Your task to perform on an android device: change notification settings in the gmail app Image 0: 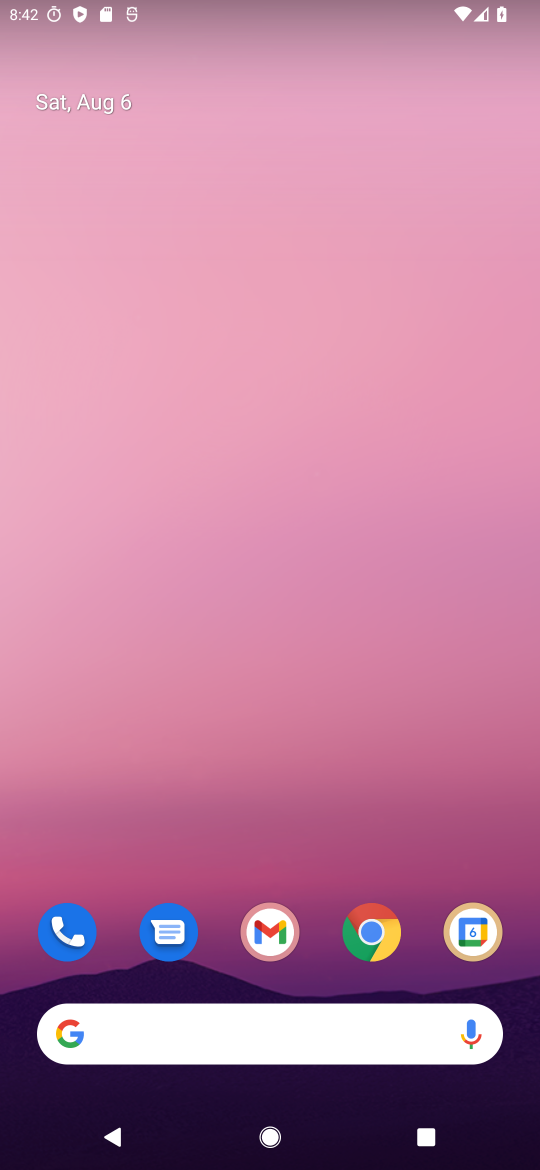
Step 0: drag from (319, 1019) to (540, 71)
Your task to perform on an android device: change notification settings in the gmail app Image 1: 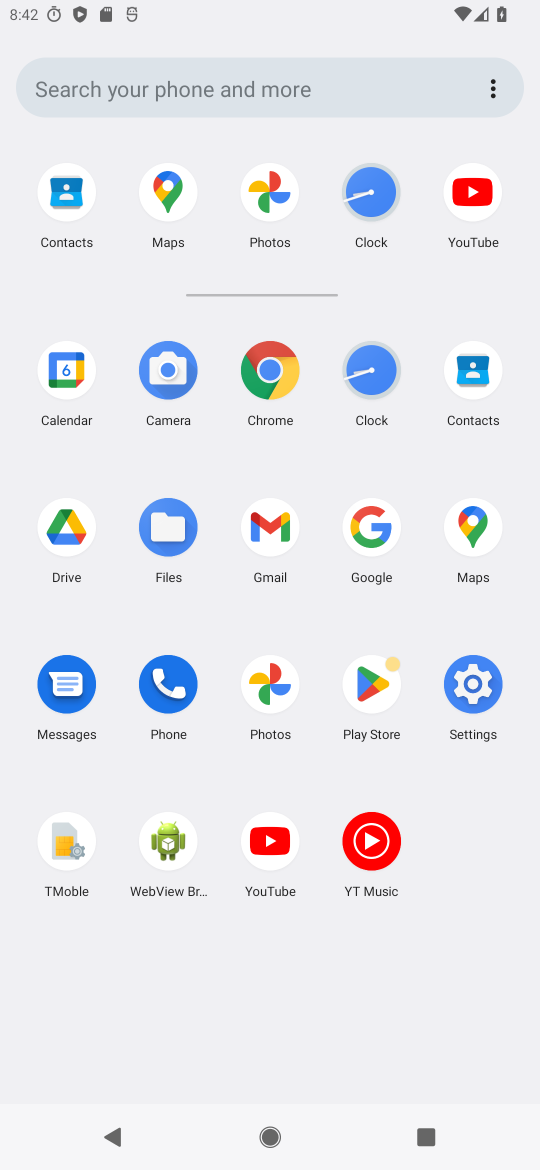
Step 1: click (277, 519)
Your task to perform on an android device: change notification settings in the gmail app Image 2: 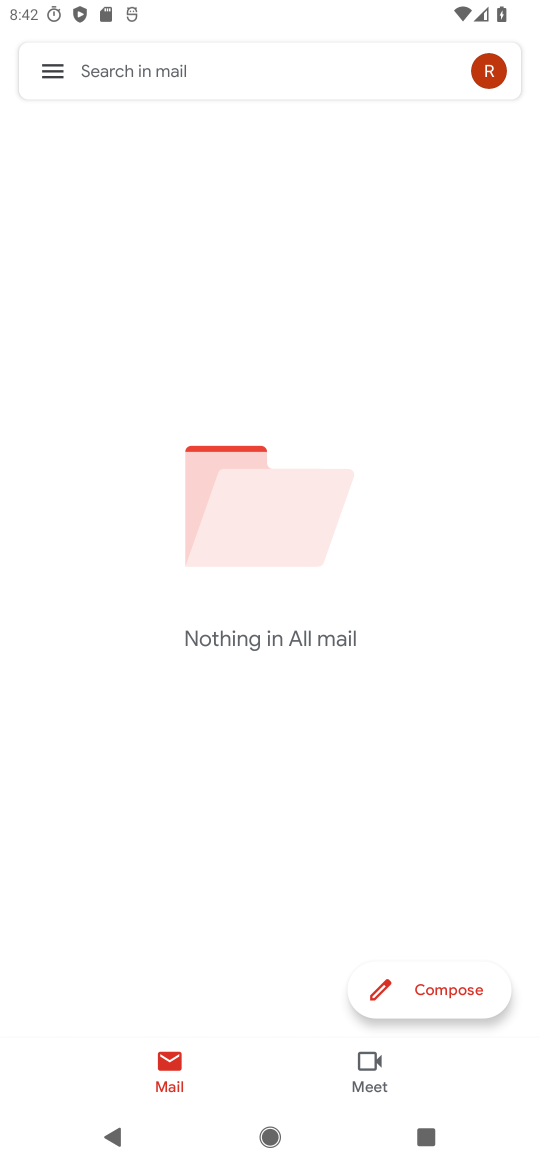
Step 2: click (40, 73)
Your task to perform on an android device: change notification settings in the gmail app Image 3: 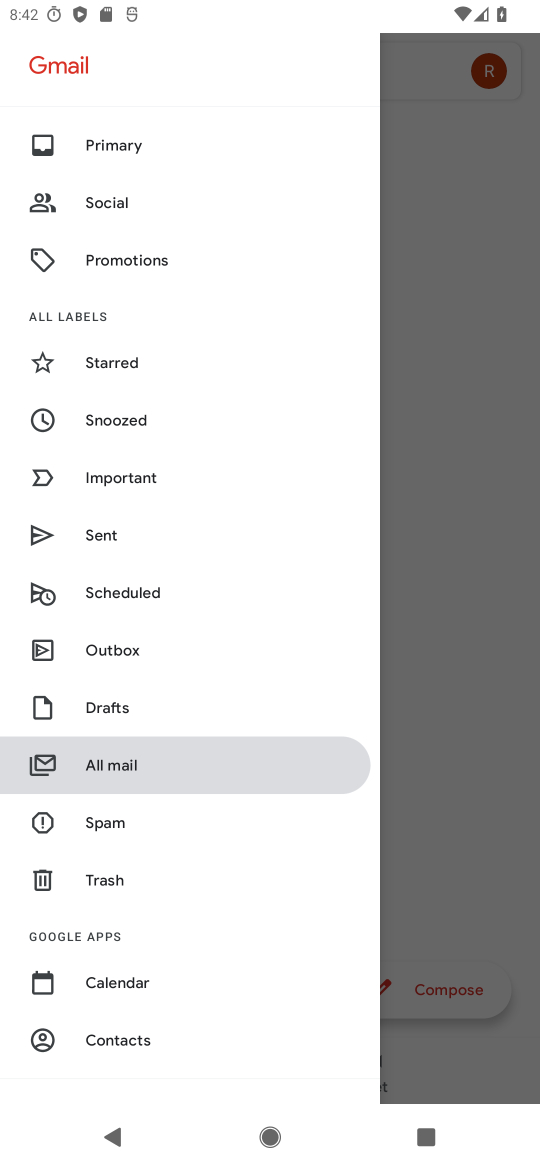
Step 3: drag from (270, 760) to (401, 457)
Your task to perform on an android device: change notification settings in the gmail app Image 4: 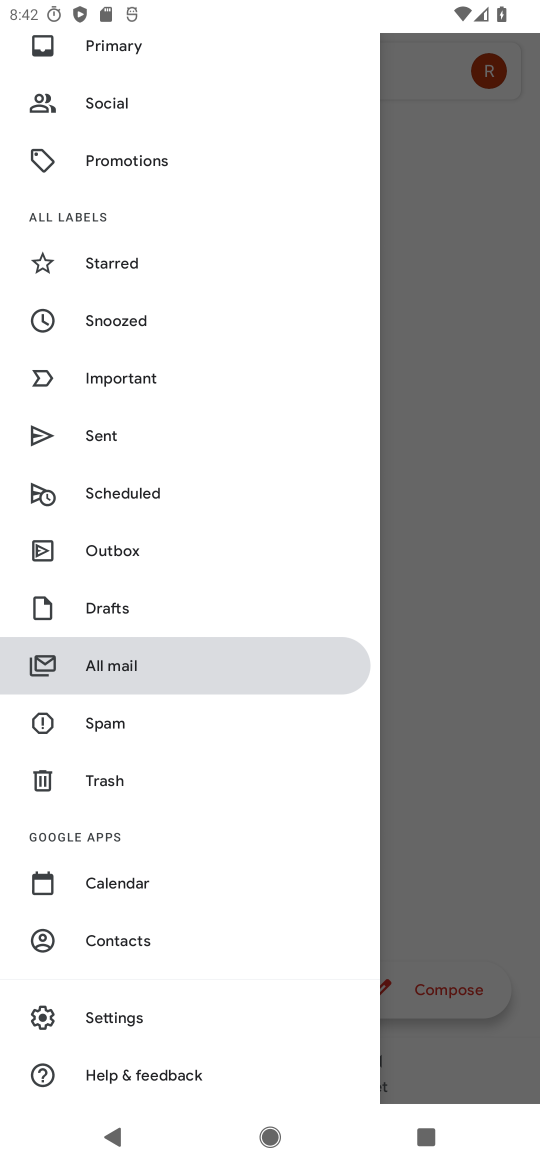
Step 4: click (137, 1015)
Your task to perform on an android device: change notification settings in the gmail app Image 5: 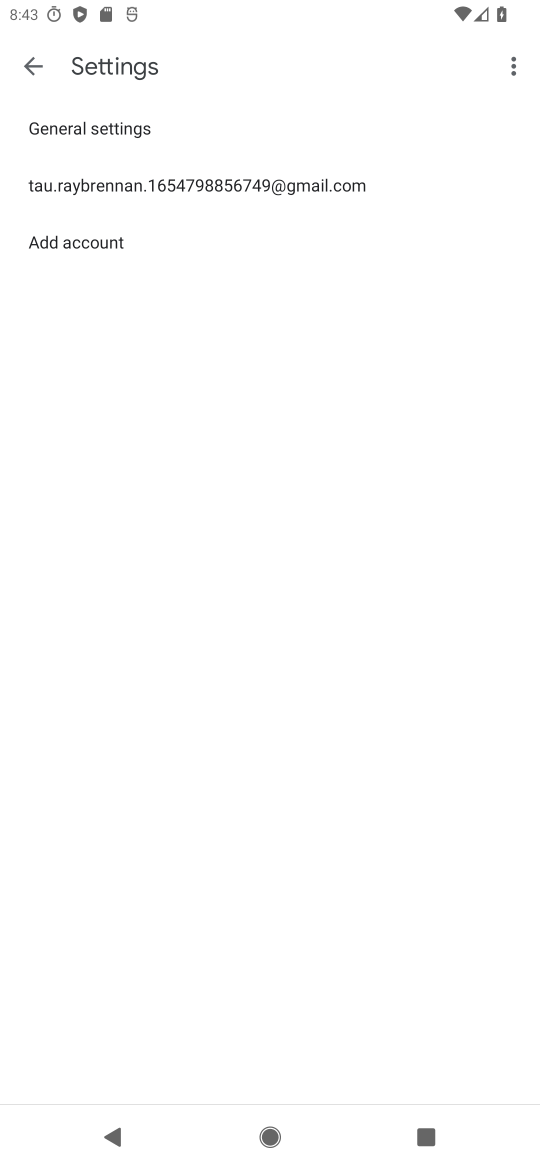
Step 5: click (275, 182)
Your task to perform on an android device: change notification settings in the gmail app Image 6: 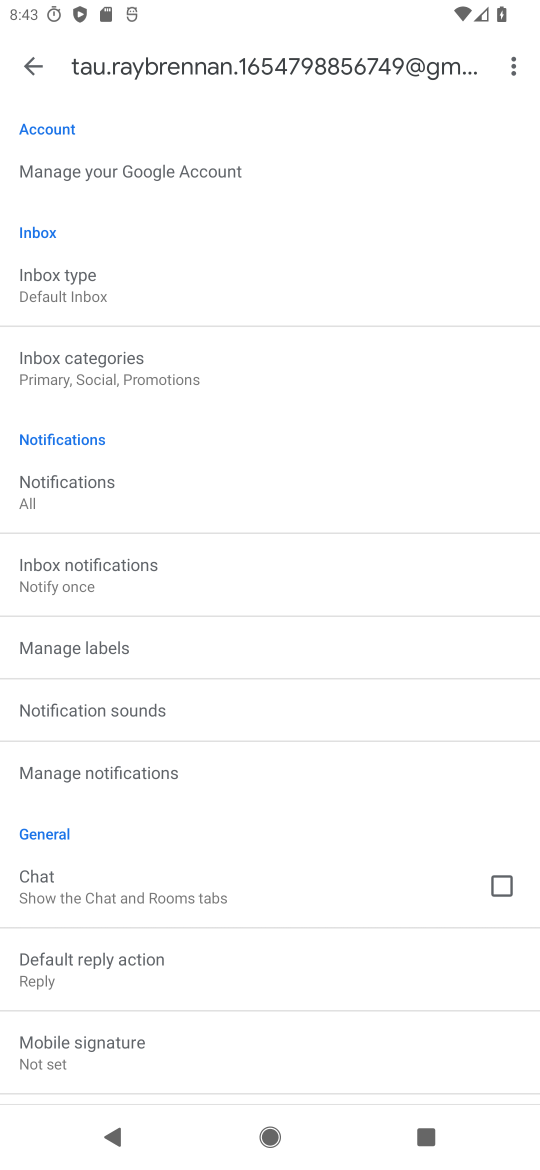
Step 6: click (118, 499)
Your task to perform on an android device: change notification settings in the gmail app Image 7: 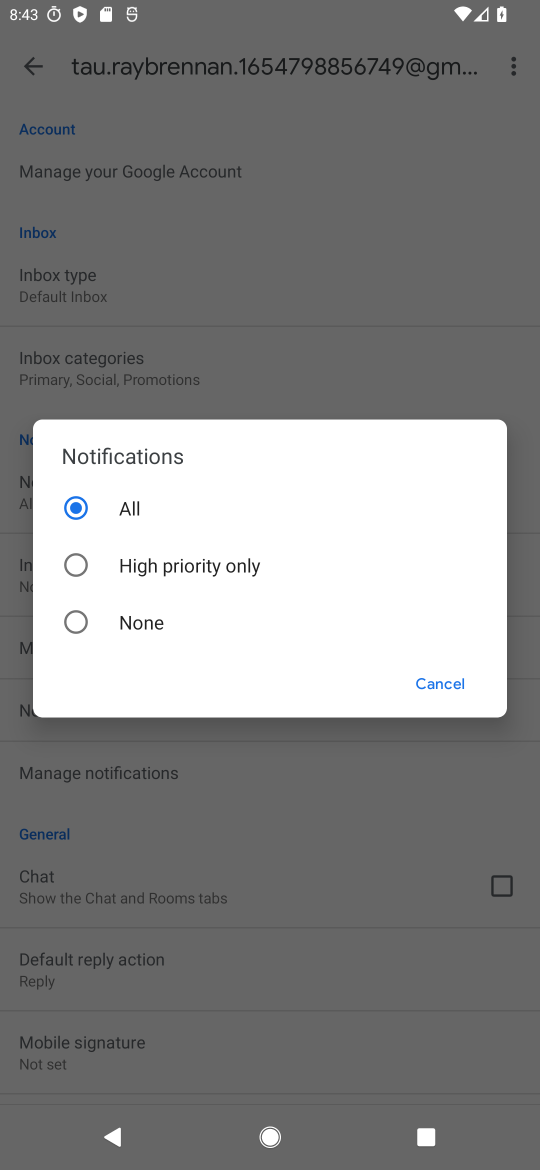
Step 7: click (77, 609)
Your task to perform on an android device: change notification settings in the gmail app Image 8: 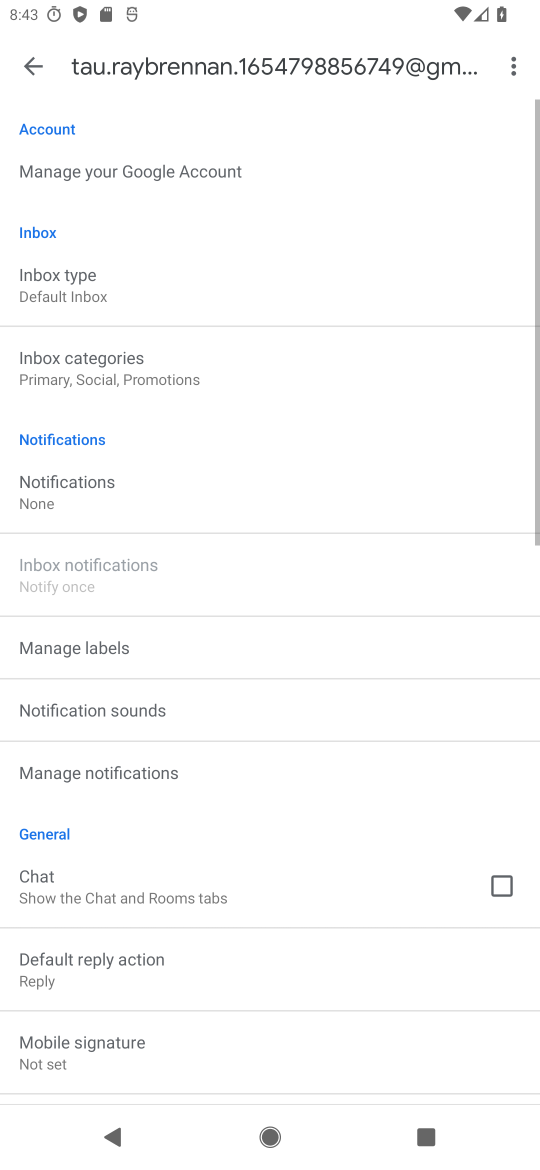
Step 8: task complete